Your task to perform on an android device: toggle notification dots Image 0: 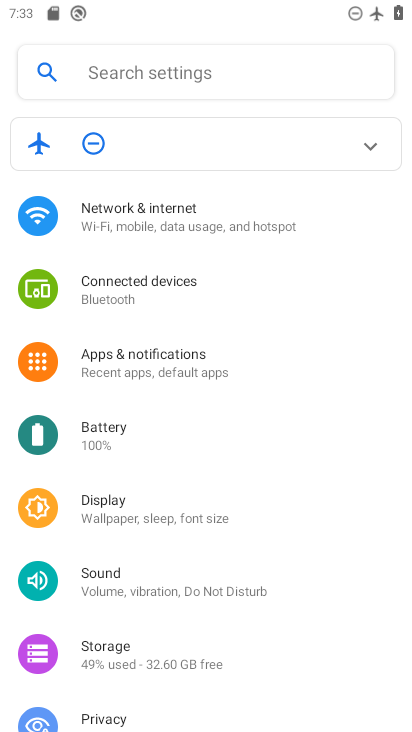
Step 0: click (134, 352)
Your task to perform on an android device: toggle notification dots Image 1: 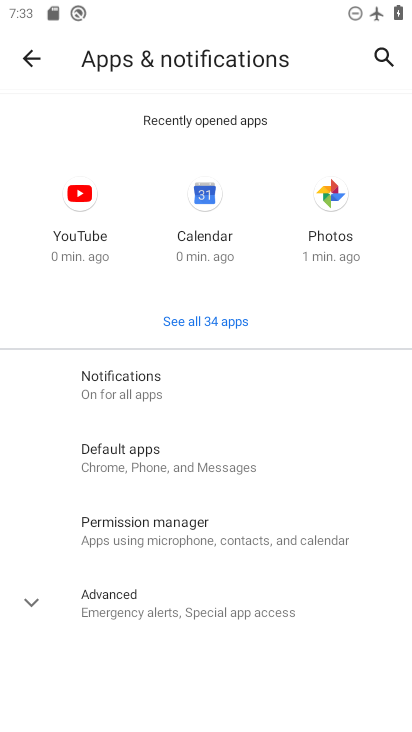
Step 1: click (140, 378)
Your task to perform on an android device: toggle notification dots Image 2: 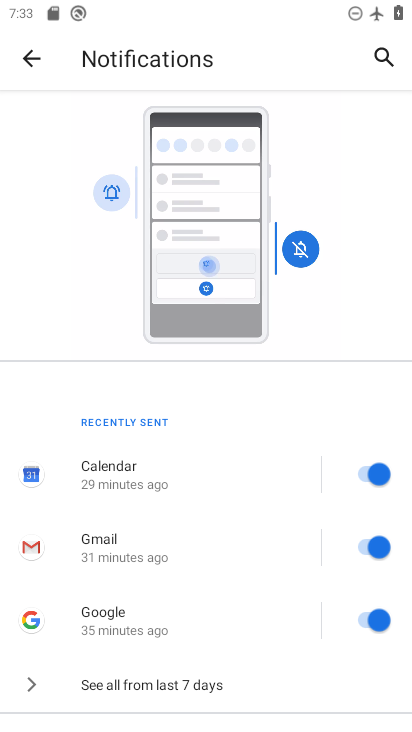
Step 2: drag from (231, 634) to (180, 139)
Your task to perform on an android device: toggle notification dots Image 3: 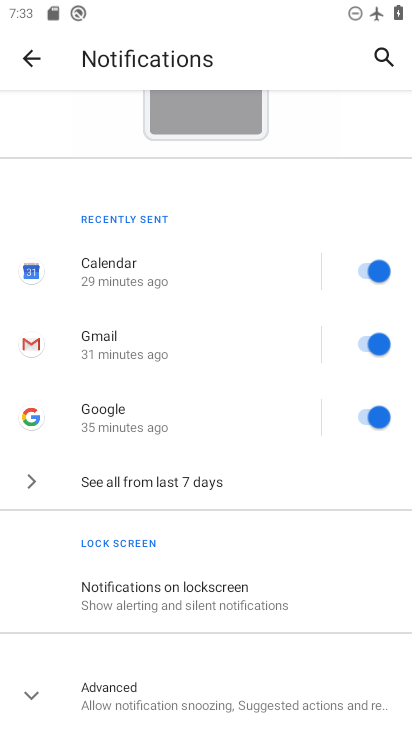
Step 3: click (96, 694)
Your task to perform on an android device: toggle notification dots Image 4: 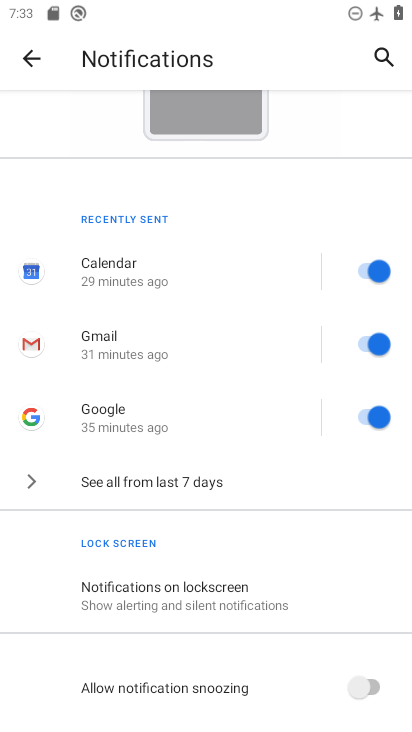
Step 4: drag from (288, 597) to (264, 128)
Your task to perform on an android device: toggle notification dots Image 5: 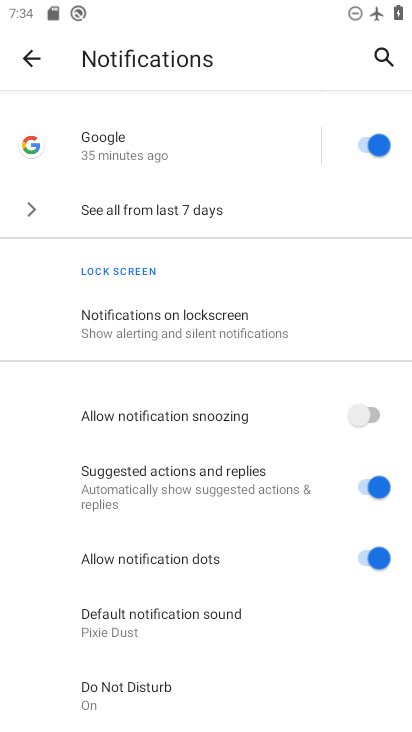
Step 5: click (379, 560)
Your task to perform on an android device: toggle notification dots Image 6: 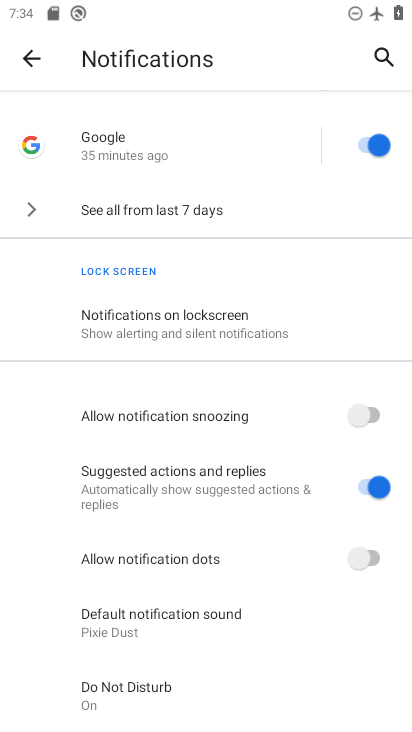
Step 6: task complete